Your task to perform on an android device: What is the news today? Image 0: 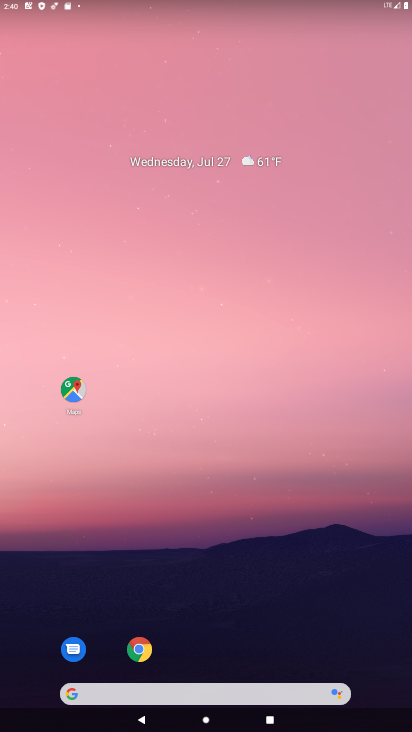
Step 0: drag from (209, 549) to (128, 696)
Your task to perform on an android device: What is the news today? Image 1: 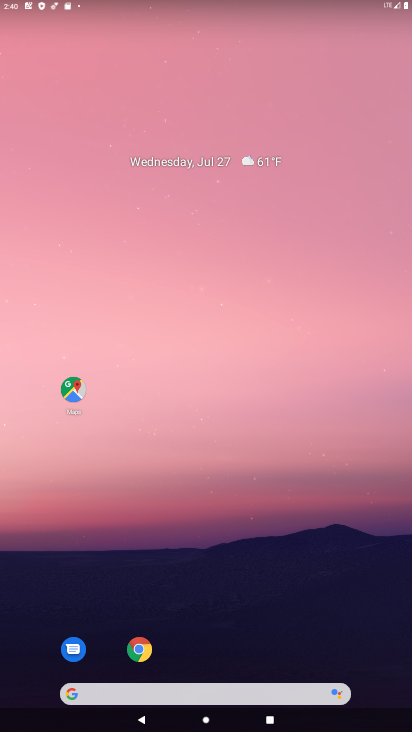
Step 1: click (128, 696)
Your task to perform on an android device: What is the news today? Image 2: 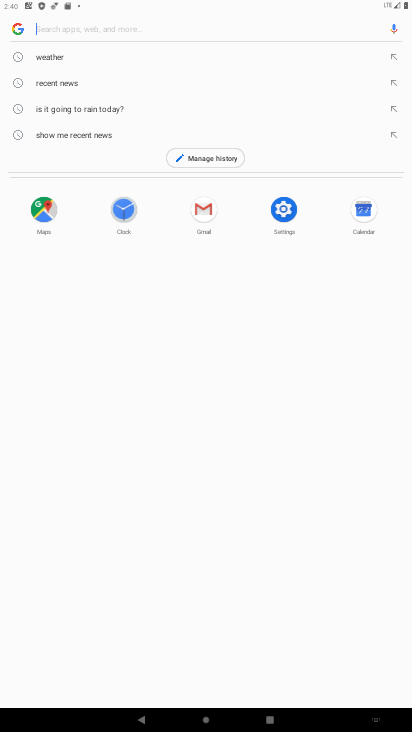
Step 2: type "news today"
Your task to perform on an android device: What is the news today? Image 3: 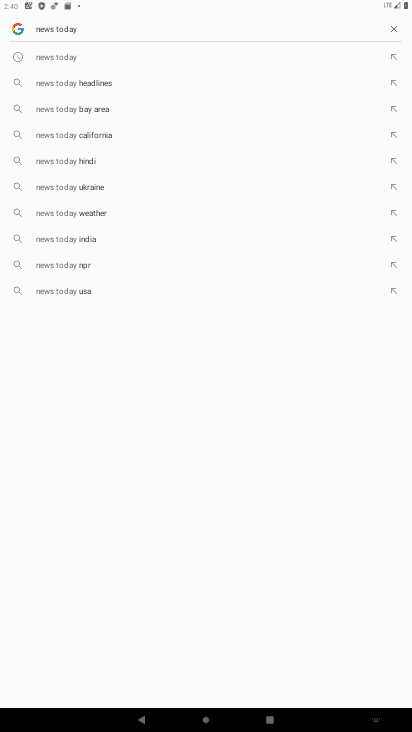
Step 3: click (70, 62)
Your task to perform on an android device: What is the news today? Image 4: 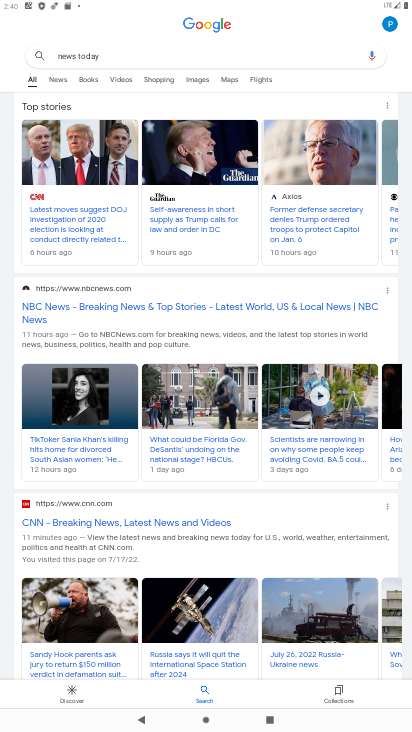
Step 4: task complete